Your task to perform on an android device: Toggle the flashlight Image 0: 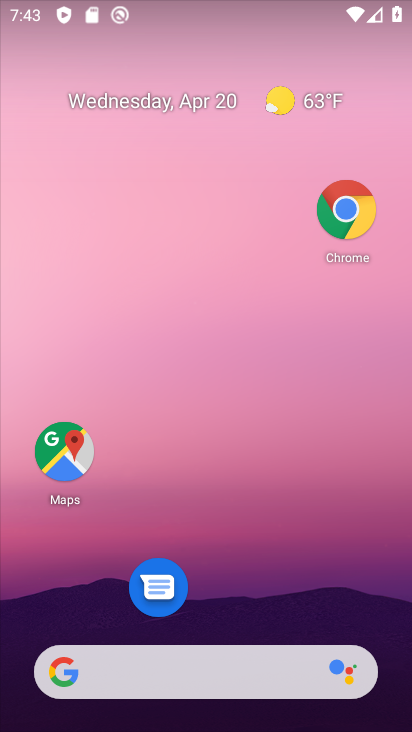
Step 0: drag from (239, 615) to (163, 13)
Your task to perform on an android device: Toggle the flashlight Image 1: 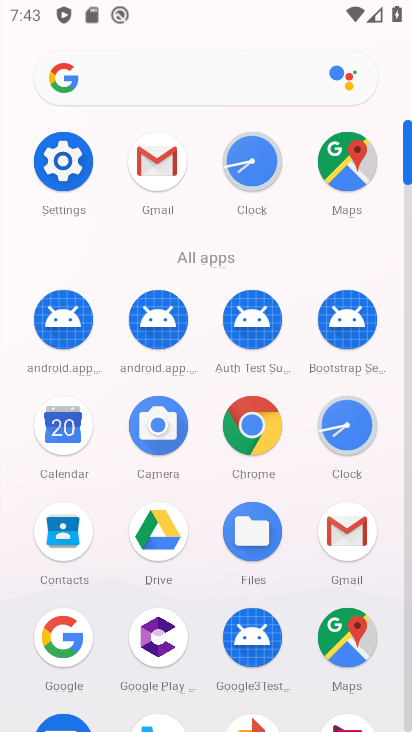
Step 1: click (255, 155)
Your task to perform on an android device: Toggle the flashlight Image 2: 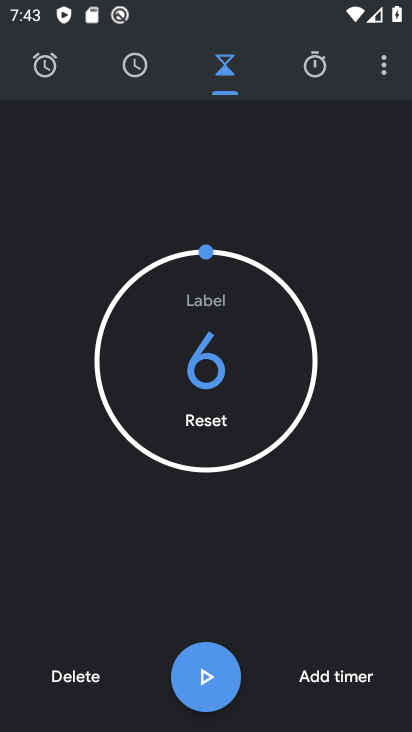
Step 2: task complete